Your task to perform on an android device: turn on notifications settings in the gmail app Image 0: 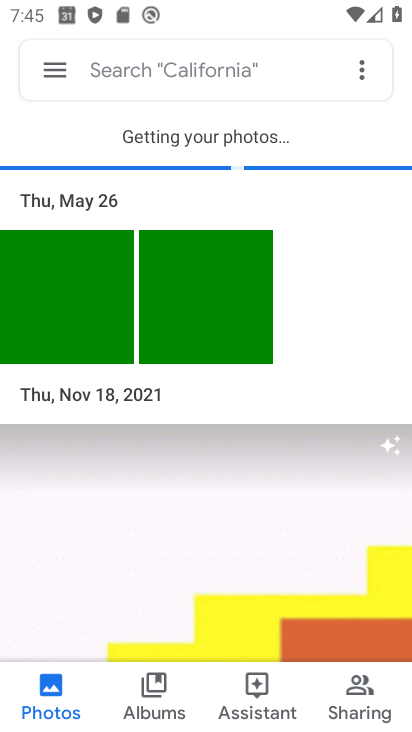
Step 0: press home button
Your task to perform on an android device: turn on notifications settings in the gmail app Image 1: 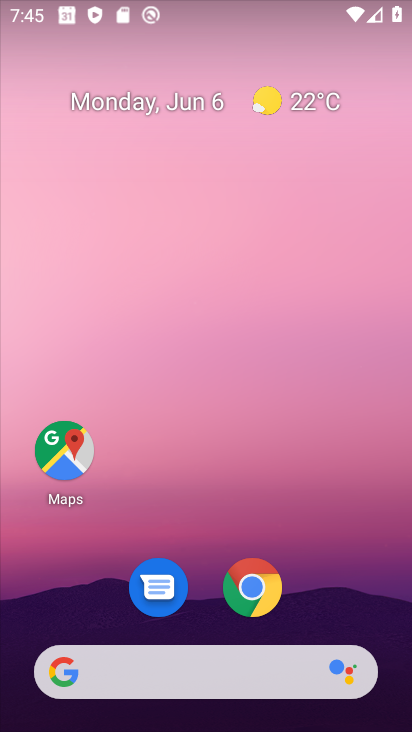
Step 1: drag from (226, 658) to (223, 328)
Your task to perform on an android device: turn on notifications settings in the gmail app Image 2: 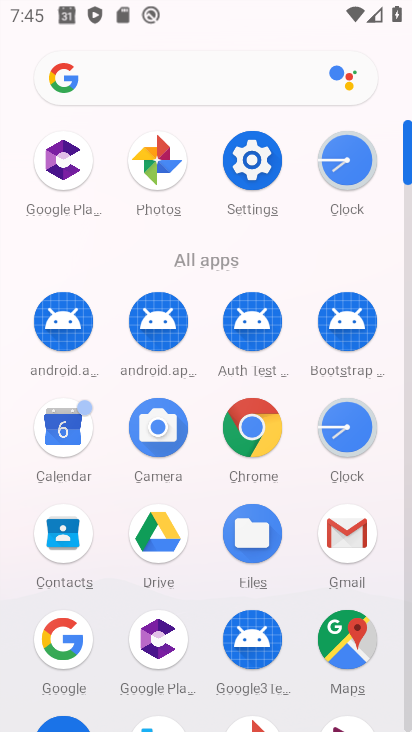
Step 2: click (335, 531)
Your task to perform on an android device: turn on notifications settings in the gmail app Image 3: 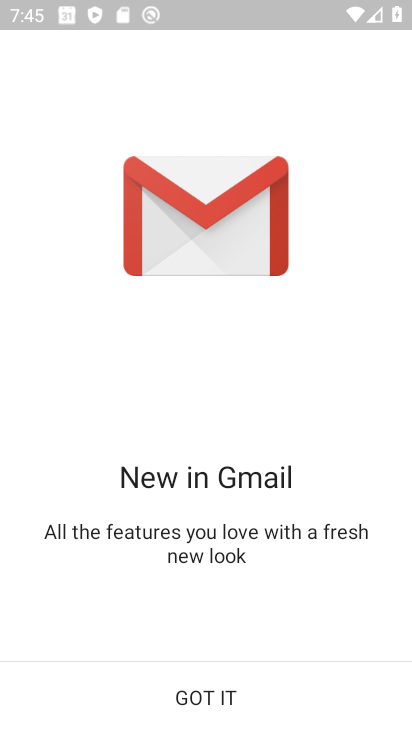
Step 3: click (189, 706)
Your task to perform on an android device: turn on notifications settings in the gmail app Image 4: 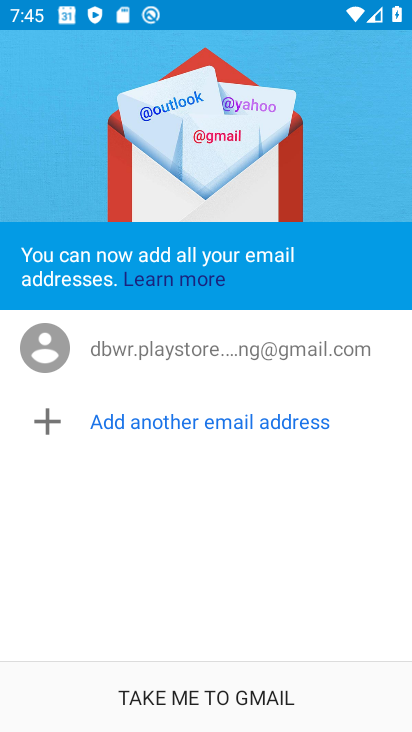
Step 4: click (189, 706)
Your task to perform on an android device: turn on notifications settings in the gmail app Image 5: 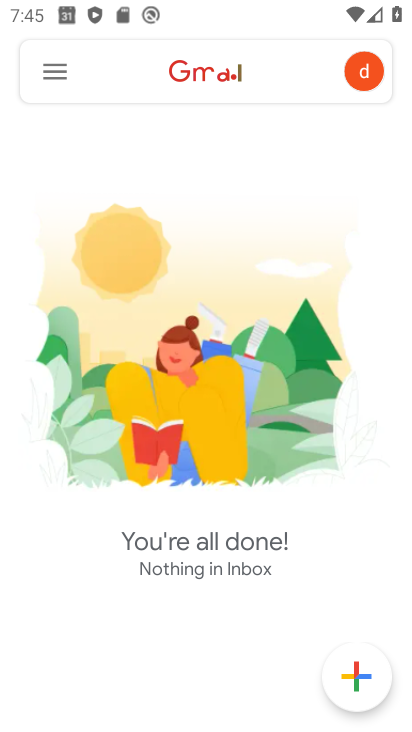
Step 5: click (50, 69)
Your task to perform on an android device: turn on notifications settings in the gmail app Image 6: 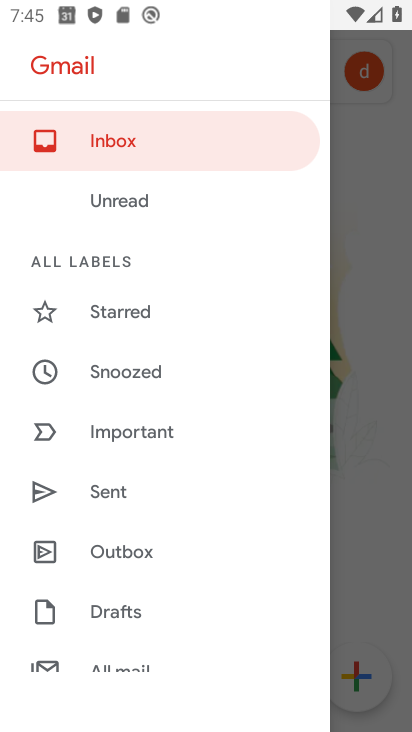
Step 6: drag from (114, 645) to (133, 198)
Your task to perform on an android device: turn on notifications settings in the gmail app Image 7: 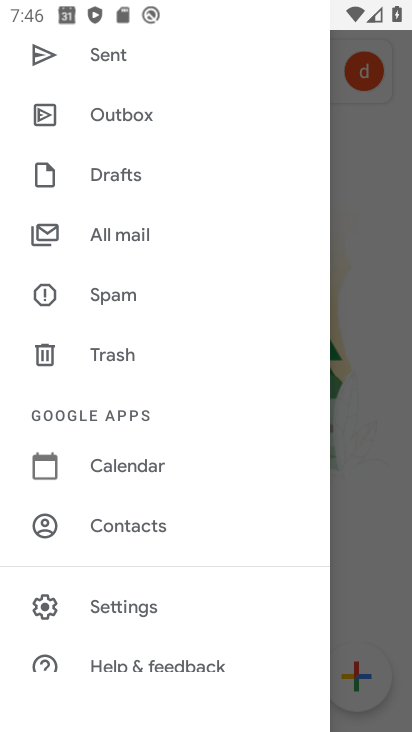
Step 7: click (135, 615)
Your task to perform on an android device: turn on notifications settings in the gmail app Image 8: 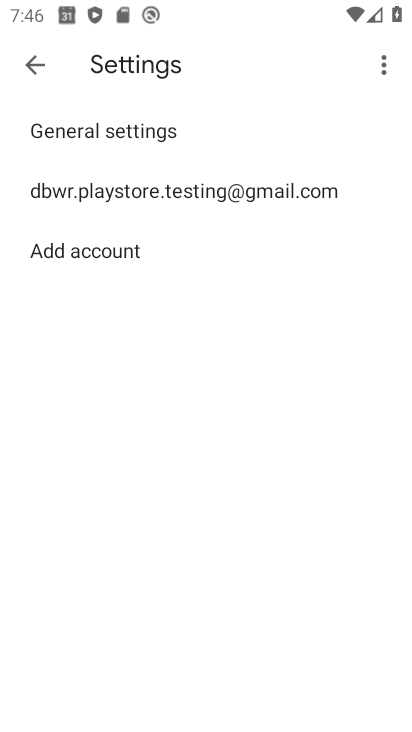
Step 8: click (145, 192)
Your task to perform on an android device: turn on notifications settings in the gmail app Image 9: 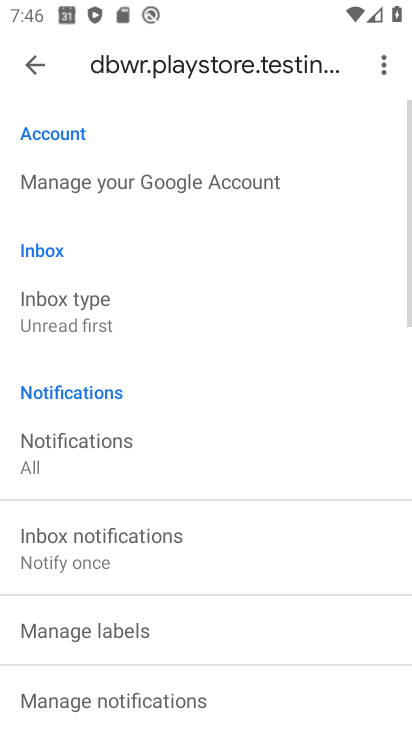
Step 9: click (42, 66)
Your task to perform on an android device: turn on notifications settings in the gmail app Image 10: 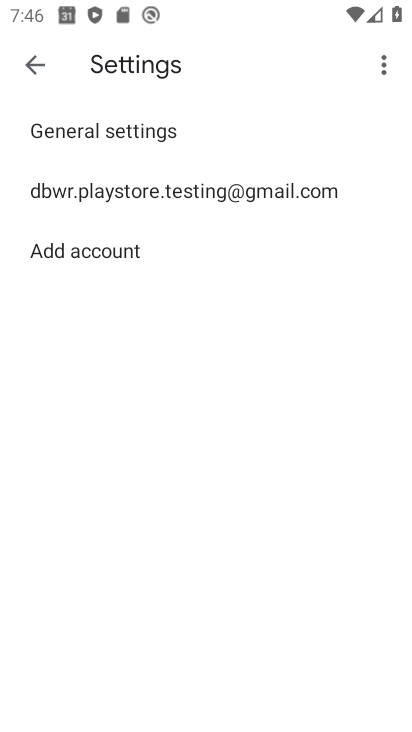
Step 10: click (132, 131)
Your task to perform on an android device: turn on notifications settings in the gmail app Image 11: 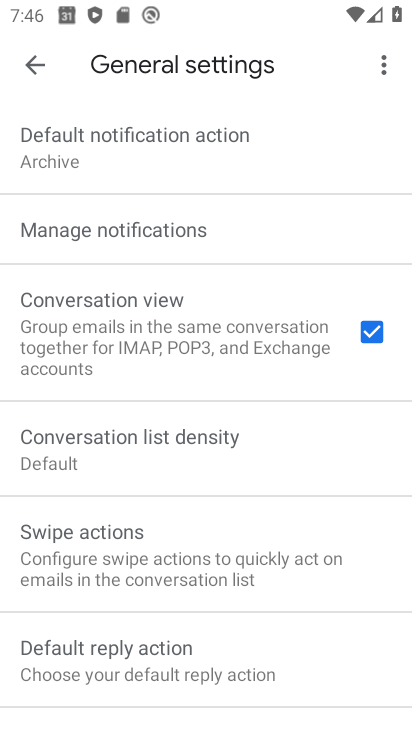
Step 11: drag from (145, 668) to (148, 291)
Your task to perform on an android device: turn on notifications settings in the gmail app Image 12: 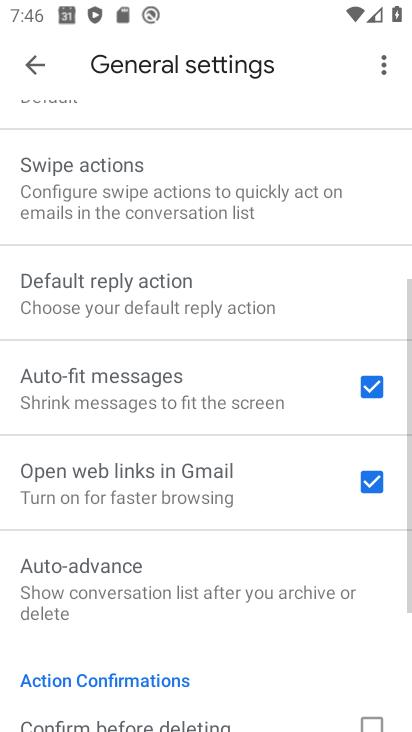
Step 12: drag from (142, 690) to (166, 319)
Your task to perform on an android device: turn on notifications settings in the gmail app Image 13: 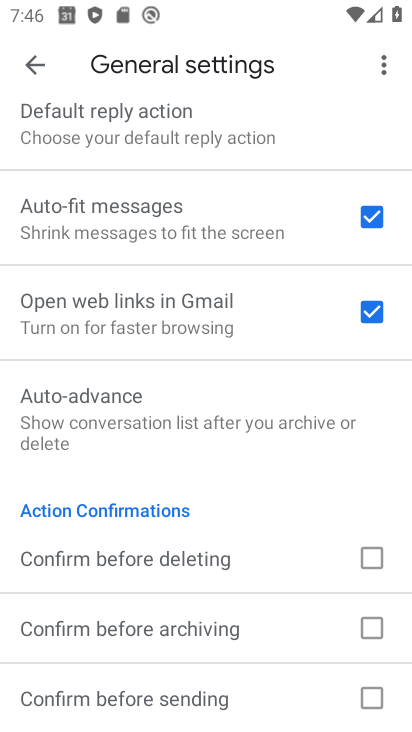
Step 13: drag from (190, 121) to (183, 662)
Your task to perform on an android device: turn on notifications settings in the gmail app Image 14: 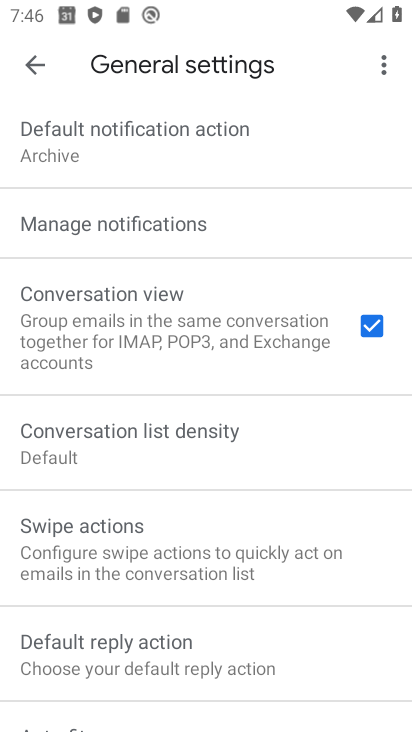
Step 14: click (170, 208)
Your task to perform on an android device: turn on notifications settings in the gmail app Image 15: 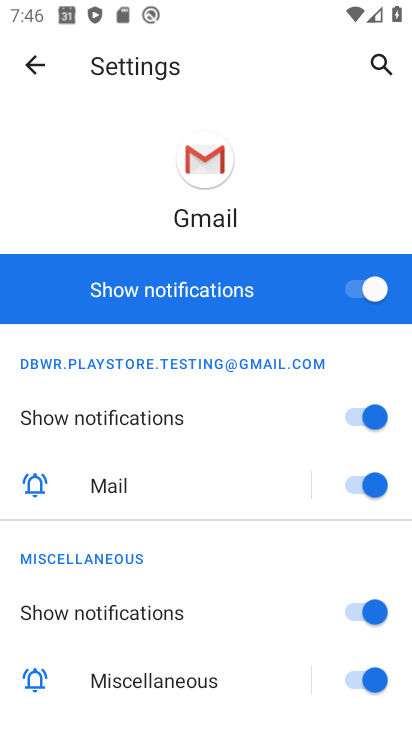
Step 15: task complete